Your task to perform on an android device: Open Google Chrome Image 0: 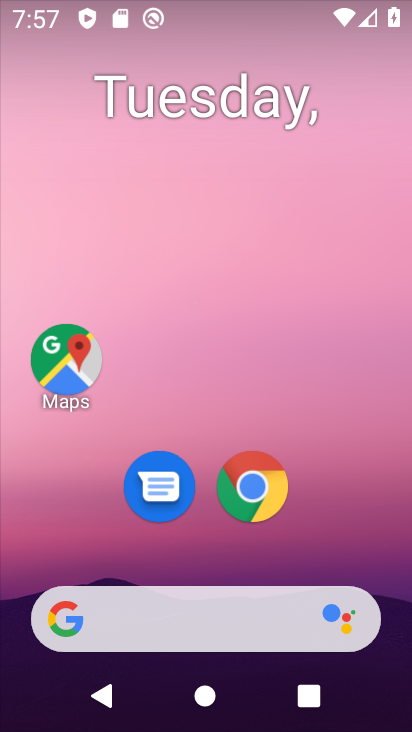
Step 0: click (279, 465)
Your task to perform on an android device: Open Google Chrome Image 1: 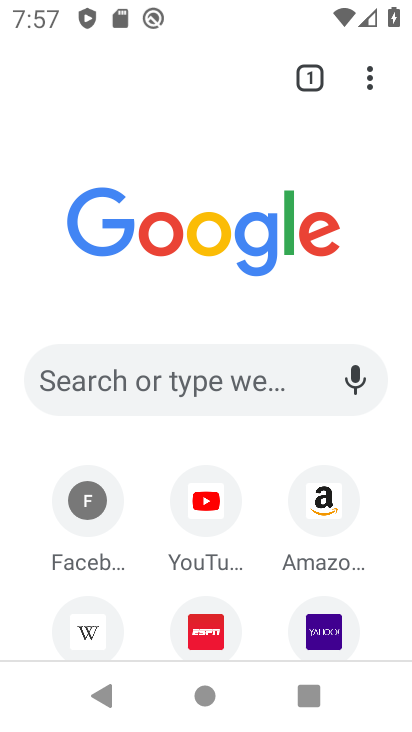
Step 1: task complete